Your task to perform on an android device: see tabs open on other devices in the chrome app Image 0: 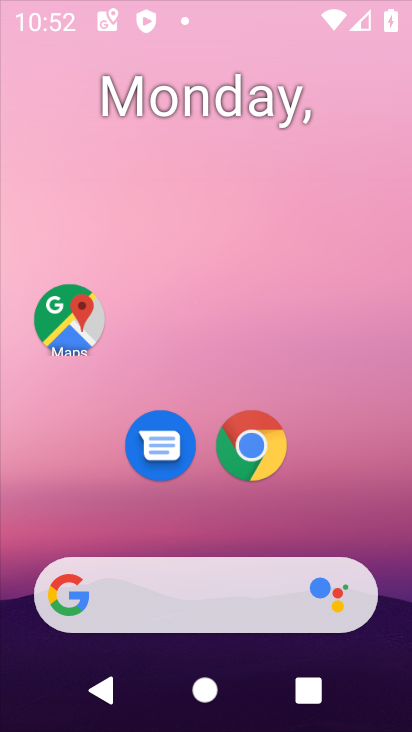
Step 0: click (287, 94)
Your task to perform on an android device: see tabs open on other devices in the chrome app Image 1: 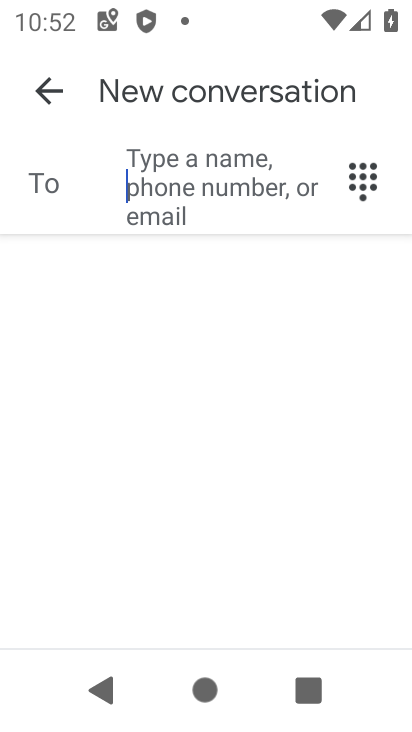
Step 1: press back button
Your task to perform on an android device: see tabs open on other devices in the chrome app Image 2: 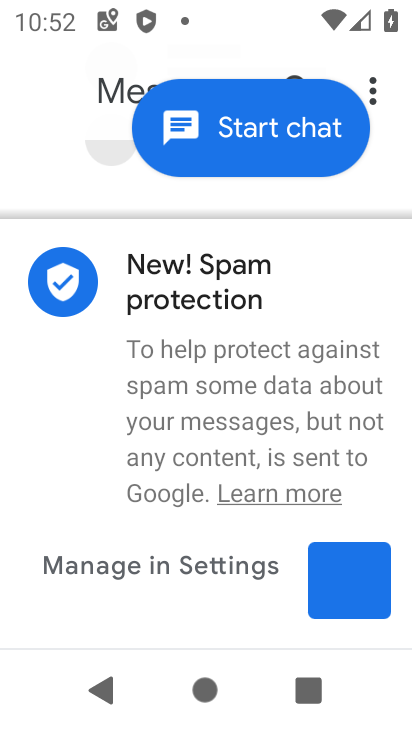
Step 2: press back button
Your task to perform on an android device: see tabs open on other devices in the chrome app Image 3: 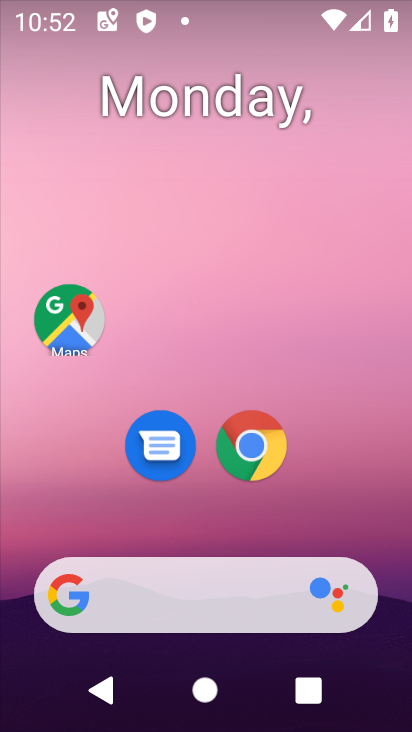
Step 3: drag from (191, 469) to (86, 163)
Your task to perform on an android device: see tabs open on other devices in the chrome app Image 4: 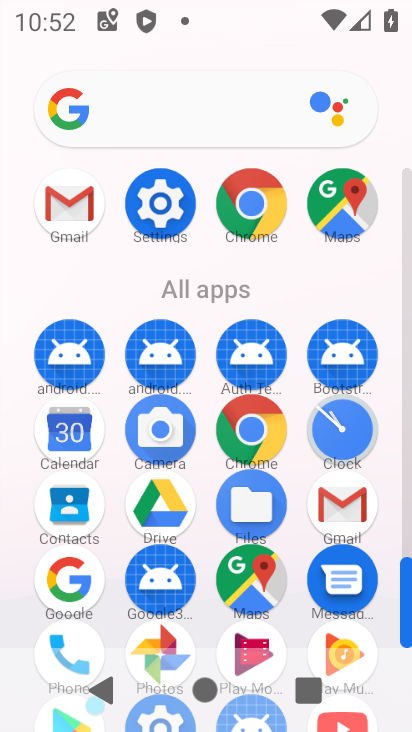
Step 4: click (266, 201)
Your task to perform on an android device: see tabs open on other devices in the chrome app Image 5: 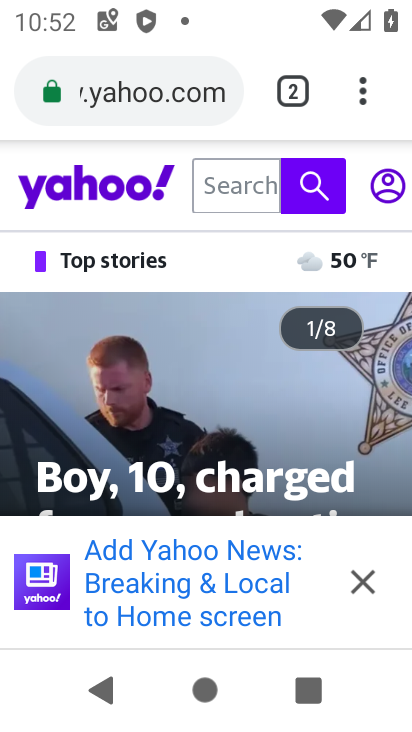
Step 5: drag from (363, 98) to (138, 457)
Your task to perform on an android device: see tabs open on other devices in the chrome app Image 6: 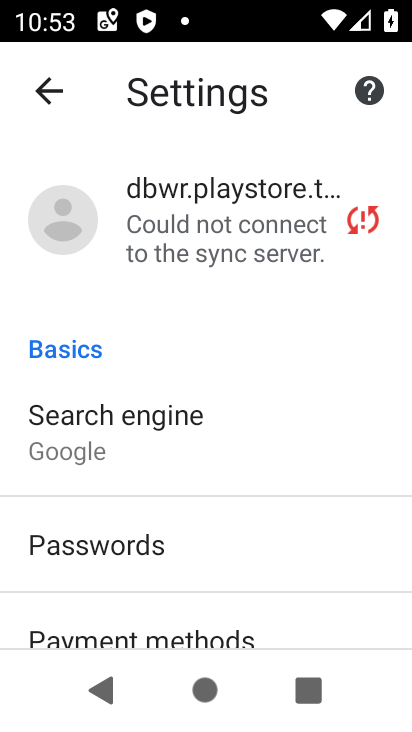
Step 6: click (55, 77)
Your task to perform on an android device: see tabs open on other devices in the chrome app Image 7: 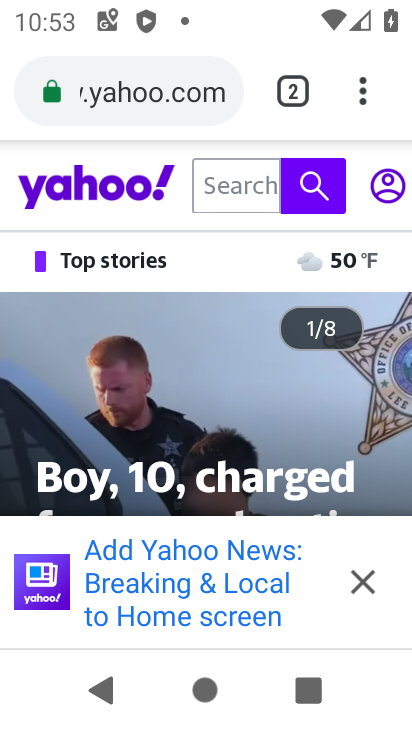
Step 7: task complete